Your task to perform on an android device: Open display settings Image 0: 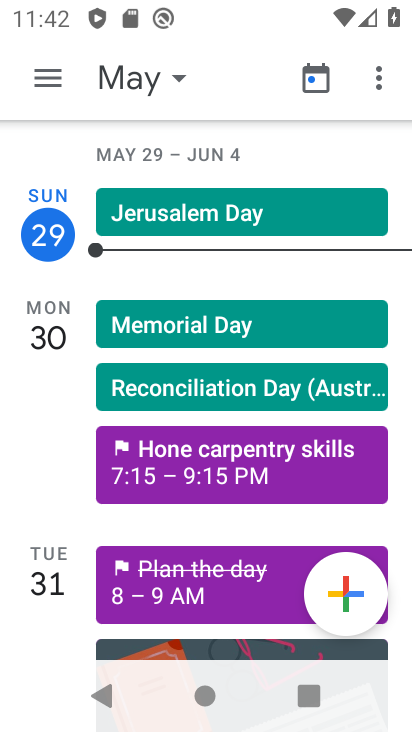
Step 0: press home button
Your task to perform on an android device: Open display settings Image 1: 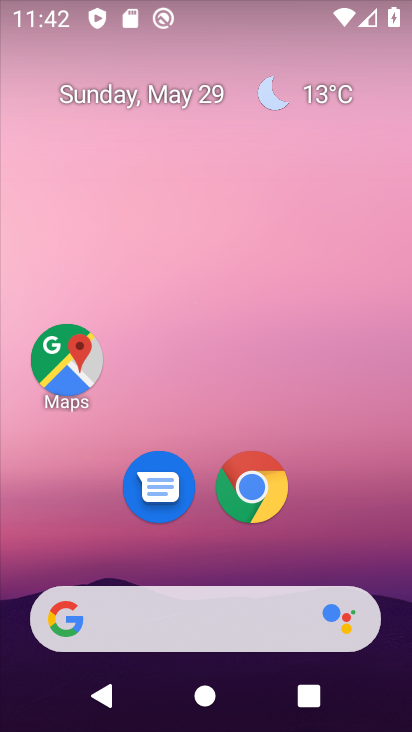
Step 1: drag from (337, 536) to (284, 54)
Your task to perform on an android device: Open display settings Image 2: 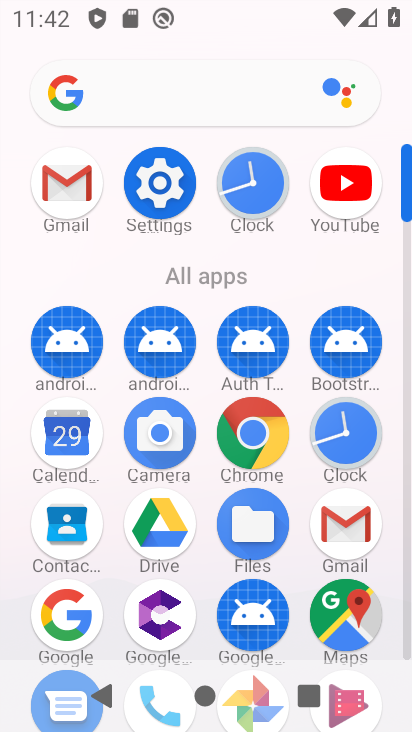
Step 2: click (142, 181)
Your task to perform on an android device: Open display settings Image 3: 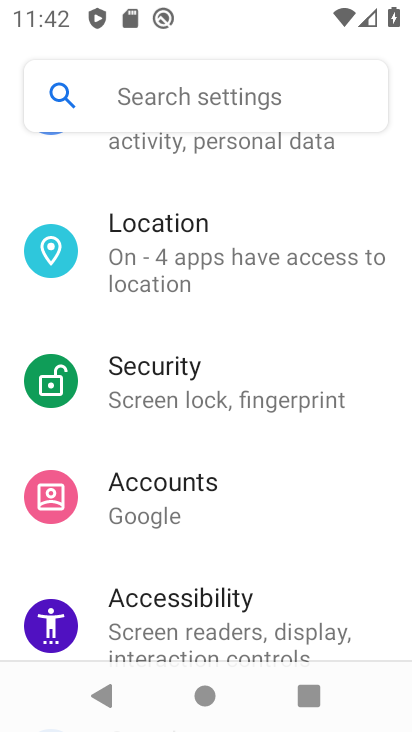
Step 3: drag from (214, 516) to (193, 640)
Your task to perform on an android device: Open display settings Image 4: 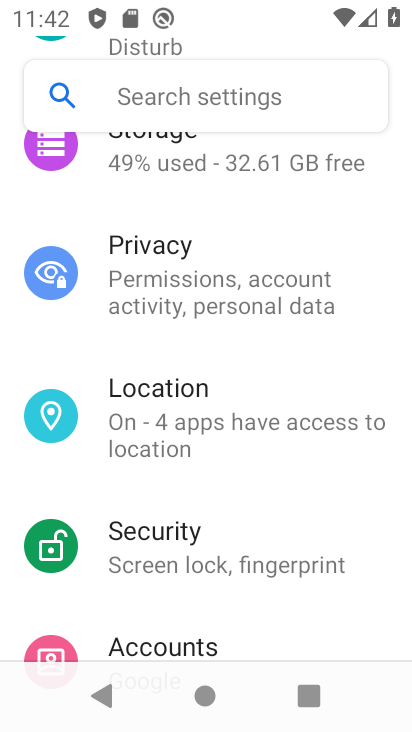
Step 4: drag from (200, 165) to (195, 514)
Your task to perform on an android device: Open display settings Image 5: 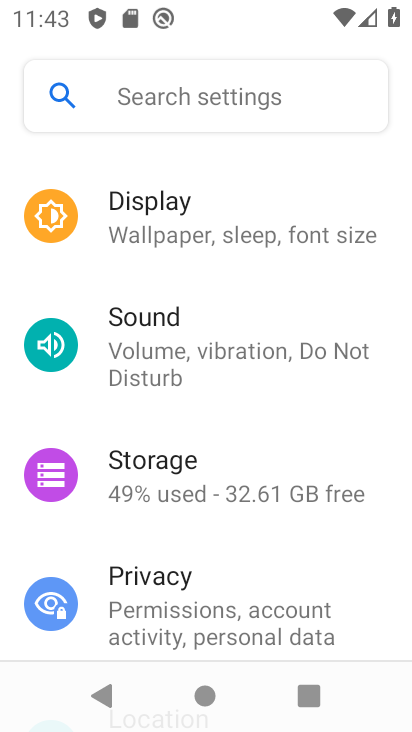
Step 5: click (193, 231)
Your task to perform on an android device: Open display settings Image 6: 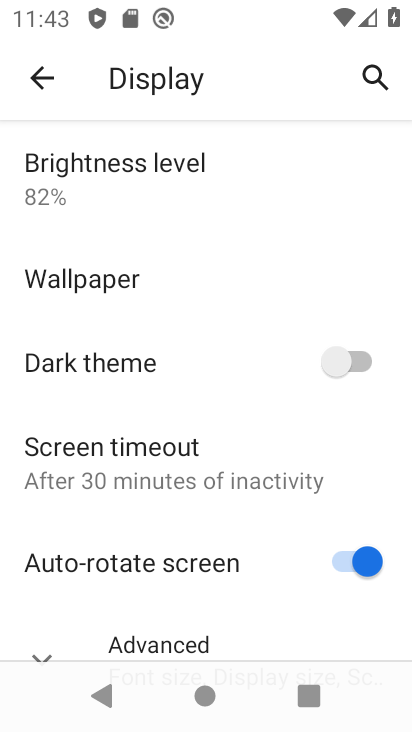
Step 6: task complete